Your task to perform on an android device: snooze an email in the gmail app Image 0: 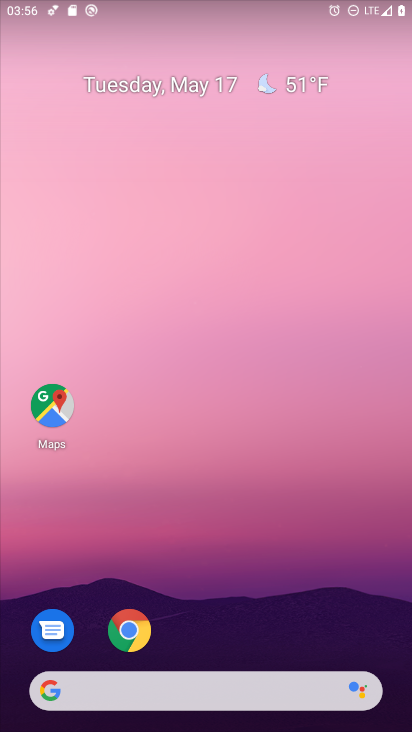
Step 0: drag from (202, 567) to (278, 56)
Your task to perform on an android device: snooze an email in the gmail app Image 1: 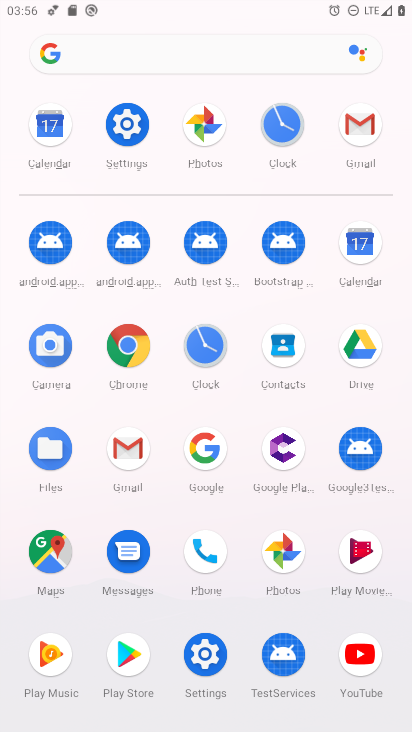
Step 1: click (355, 119)
Your task to perform on an android device: snooze an email in the gmail app Image 2: 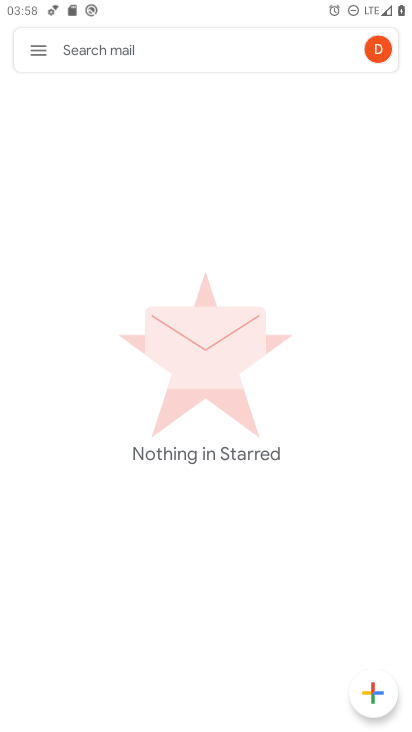
Step 2: click (39, 50)
Your task to perform on an android device: snooze an email in the gmail app Image 3: 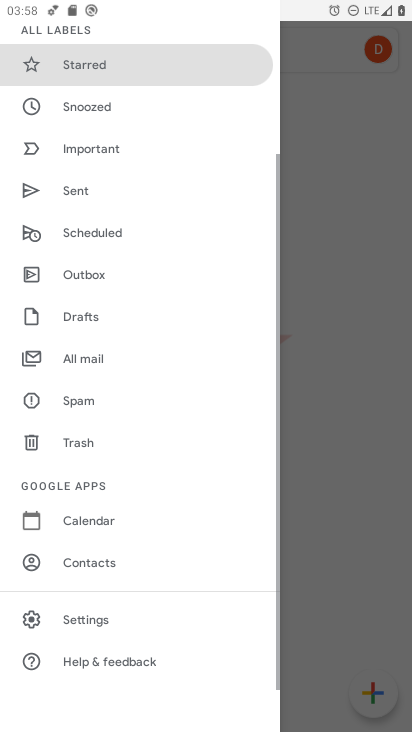
Step 3: drag from (157, 161) to (158, 668)
Your task to perform on an android device: snooze an email in the gmail app Image 4: 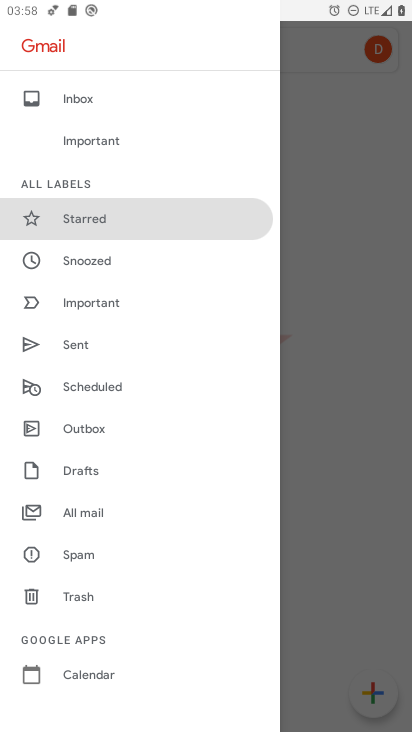
Step 4: click (96, 521)
Your task to perform on an android device: snooze an email in the gmail app Image 5: 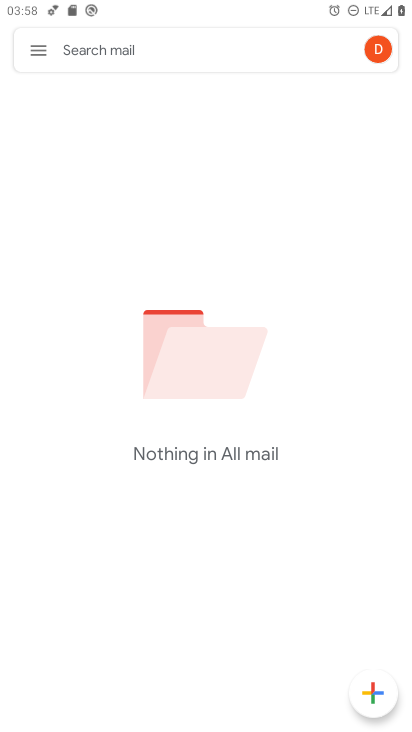
Step 5: task complete